Your task to perform on an android device: Go to Maps Image 0: 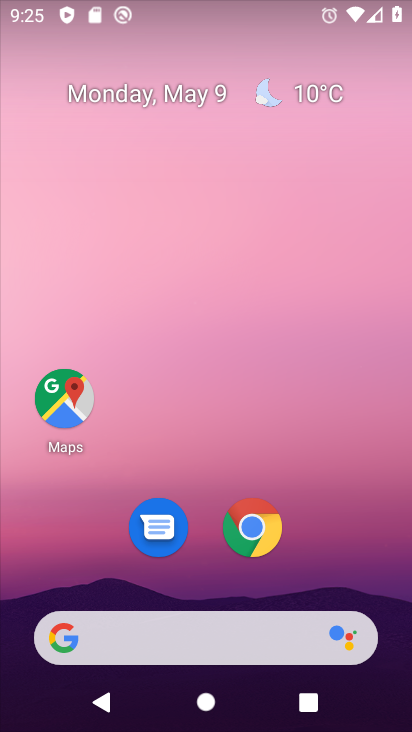
Step 0: click (64, 396)
Your task to perform on an android device: Go to Maps Image 1: 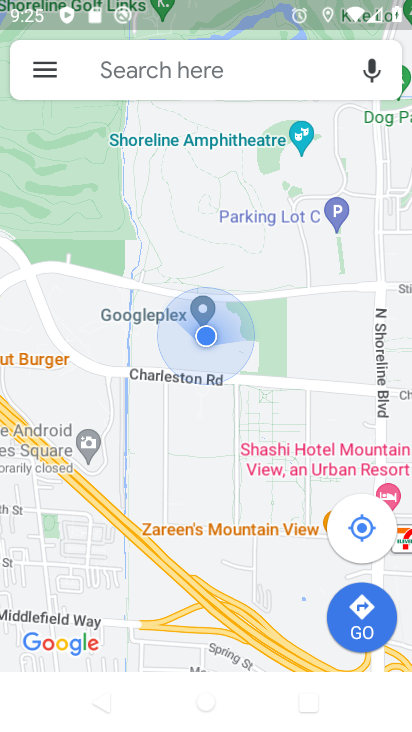
Step 1: task complete